Your task to perform on an android device: set an alarm Image 0: 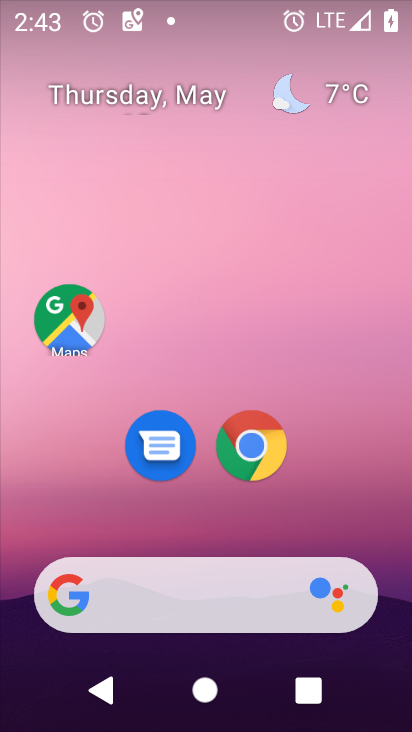
Step 0: drag from (365, 515) to (385, 4)
Your task to perform on an android device: set an alarm Image 1: 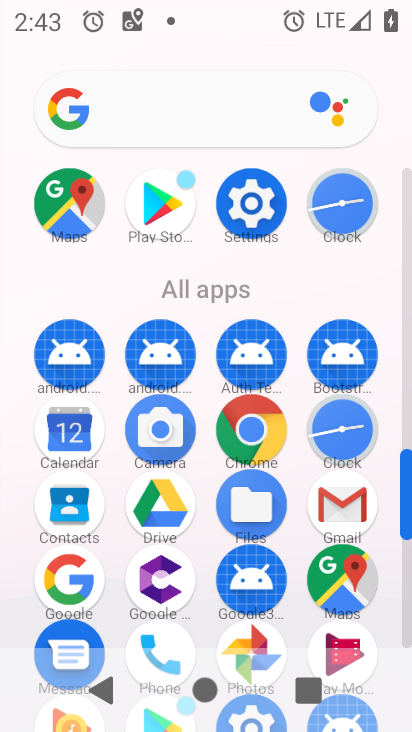
Step 1: click (342, 204)
Your task to perform on an android device: set an alarm Image 2: 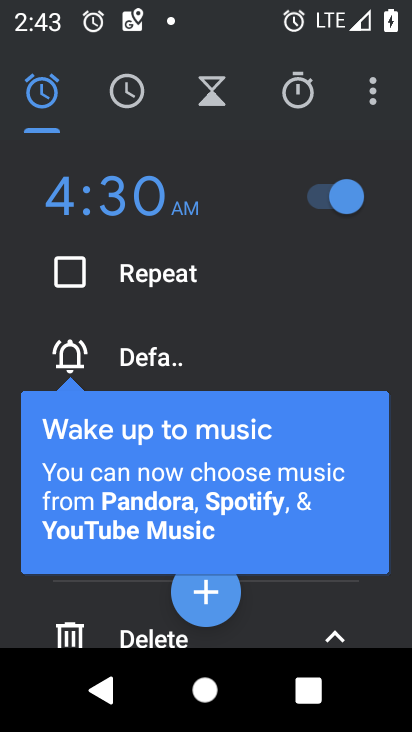
Step 2: click (218, 592)
Your task to perform on an android device: set an alarm Image 3: 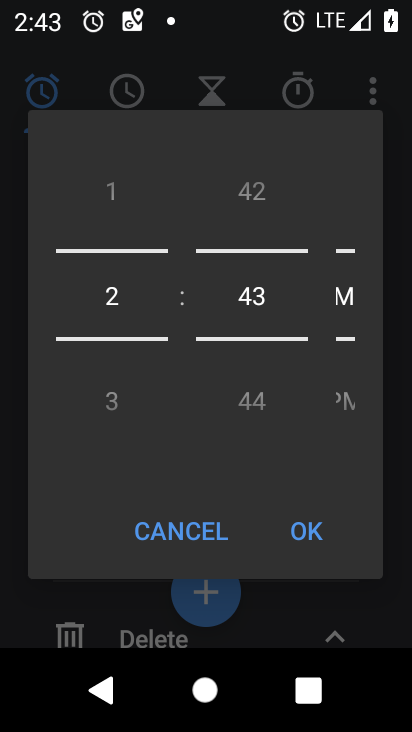
Step 3: drag from (110, 298) to (106, 45)
Your task to perform on an android device: set an alarm Image 4: 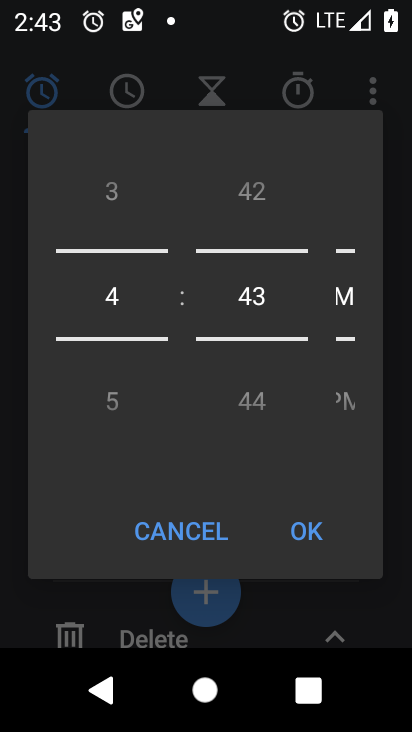
Step 4: drag from (123, 355) to (118, 106)
Your task to perform on an android device: set an alarm Image 5: 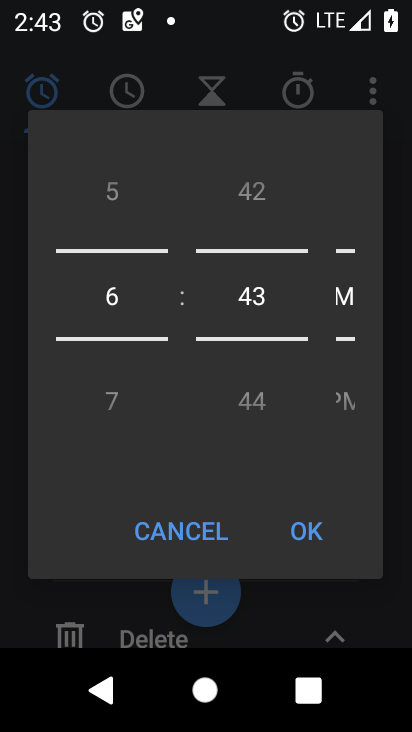
Step 5: drag from (124, 305) to (136, 394)
Your task to perform on an android device: set an alarm Image 6: 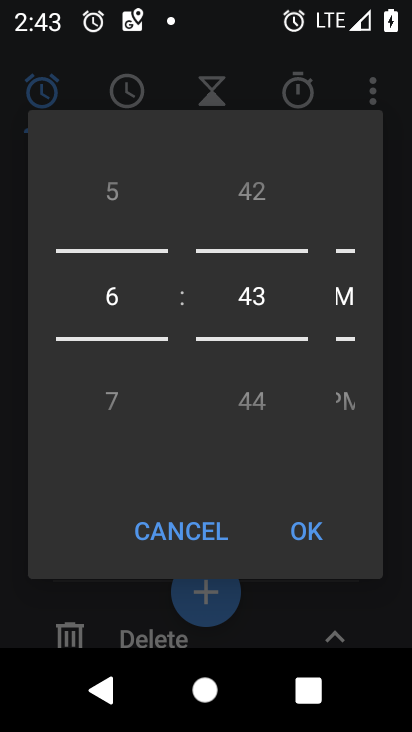
Step 6: drag from (111, 287) to (129, 422)
Your task to perform on an android device: set an alarm Image 7: 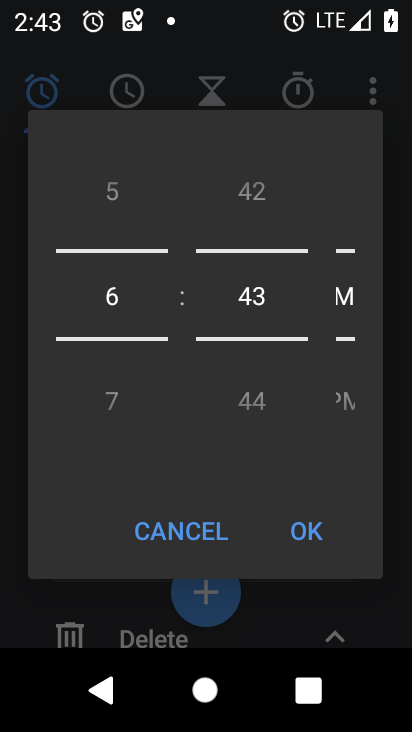
Step 7: drag from (260, 293) to (274, 144)
Your task to perform on an android device: set an alarm Image 8: 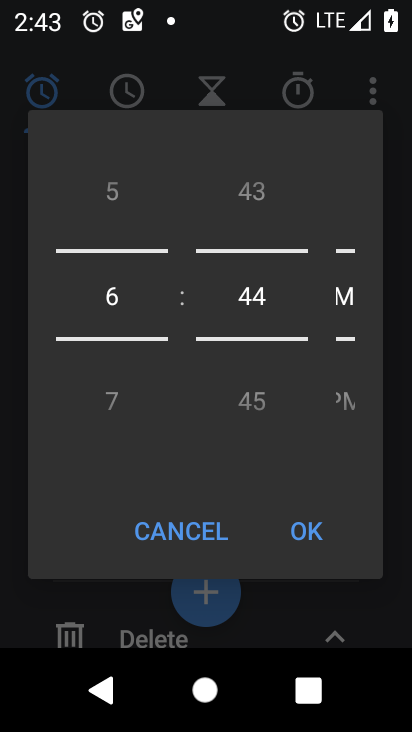
Step 8: drag from (237, 322) to (252, 166)
Your task to perform on an android device: set an alarm Image 9: 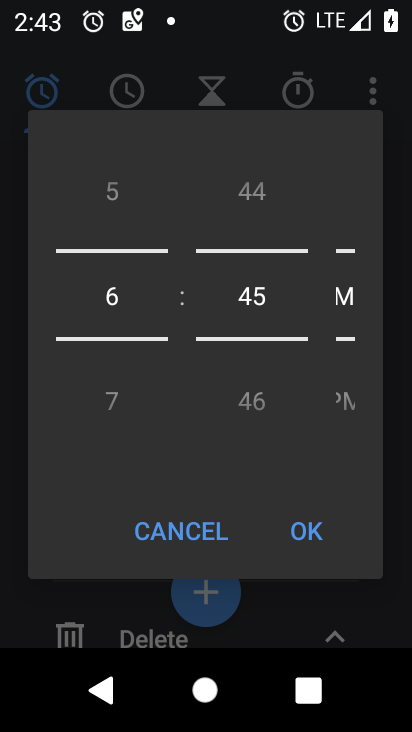
Step 9: click (302, 532)
Your task to perform on an android device: set an alarm Image 10: 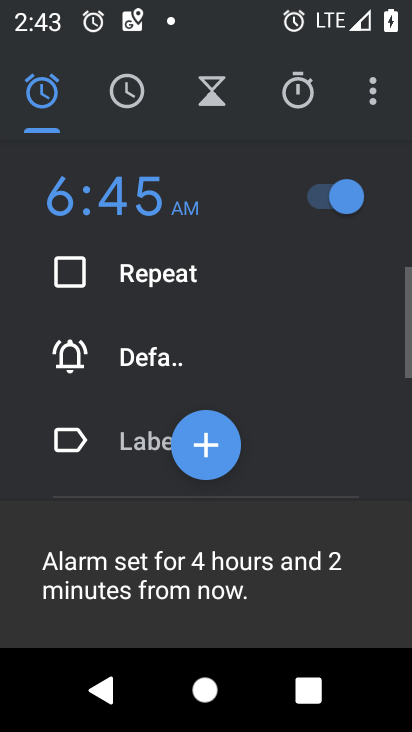
Step 10: task complete